Your task to perform on an android device: see tabs open on other devices in the chrome app Image 0: 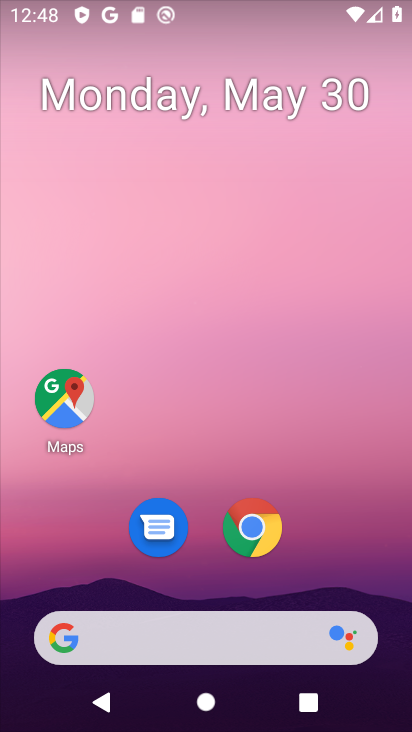
Step 0: click (275, 538)
Your task to perform on an android device: see tabs open on other devices in the chrome app Image 1: 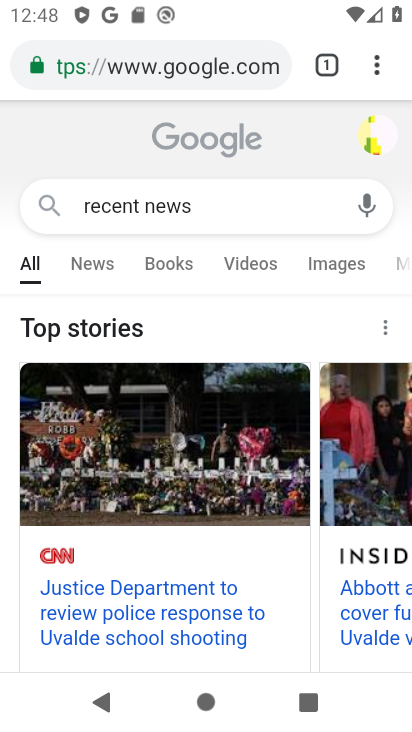
Step 1: click (371, 85)
Your task to perform on an android device: see tabs open on other devices in the chrome app Image 2: 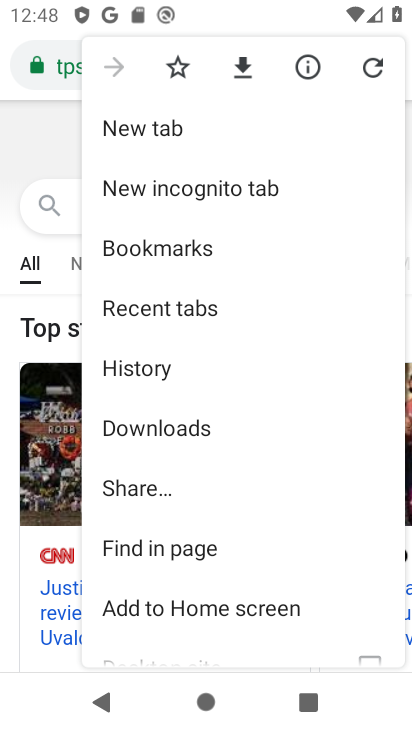
Step 2: click (171, 320)
Your task to perform on an android device: see tabs open on other devices in the chrome app Image 3: 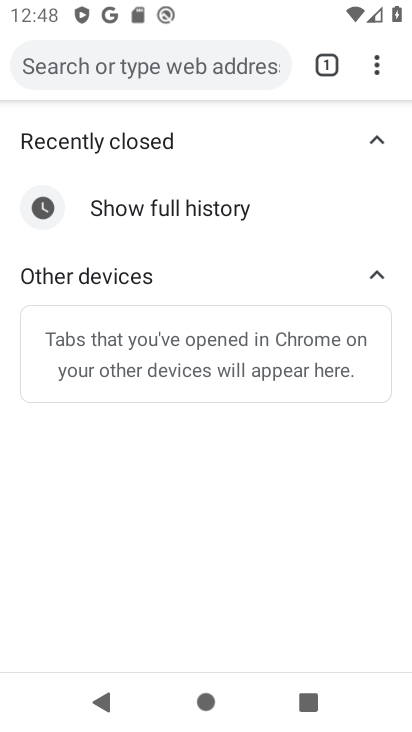
Step 3: task complete